Your task to perform on an android device: Play the last video I watched on Youtube Image 0: 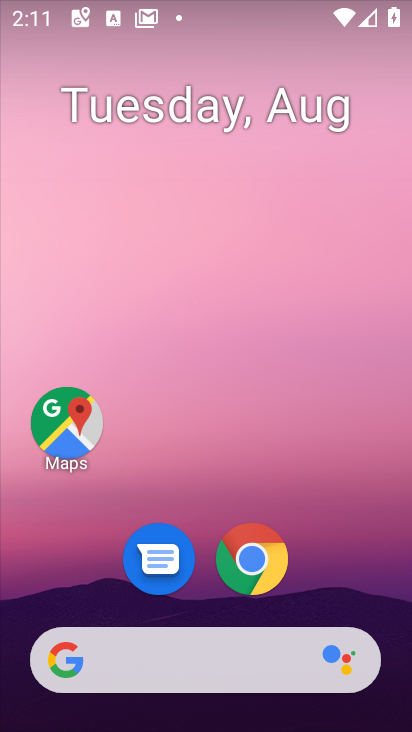
Step 0: drag from (211, 510) to (180, 131)
Your task to perform on an android device: Play the last video I watched on Youtube Image 1: 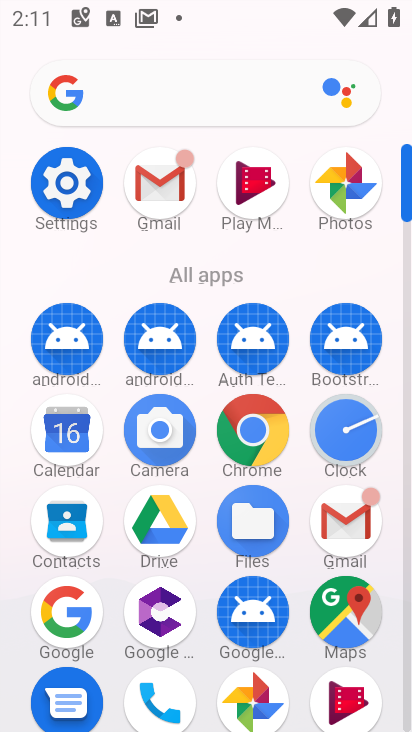
Step 1: drag from (196, 600) to (200, 264)
Your task to perform on an android device: Play the last video I watched on Youtube Image 2: 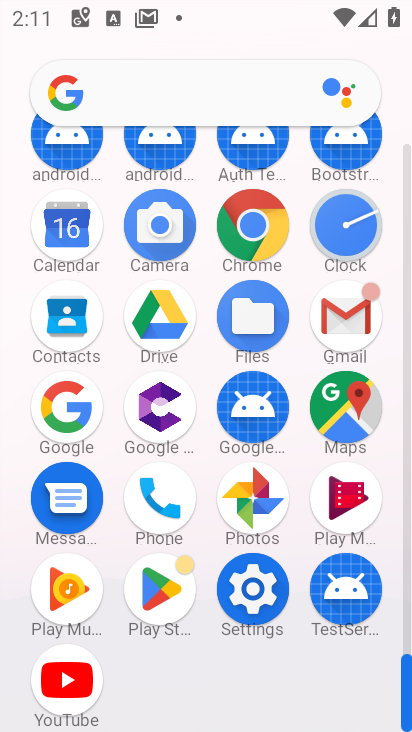
Step 2: click (84, 667)
Your task to perform on an android device: Play the last video I watched on Youtube Image 3: 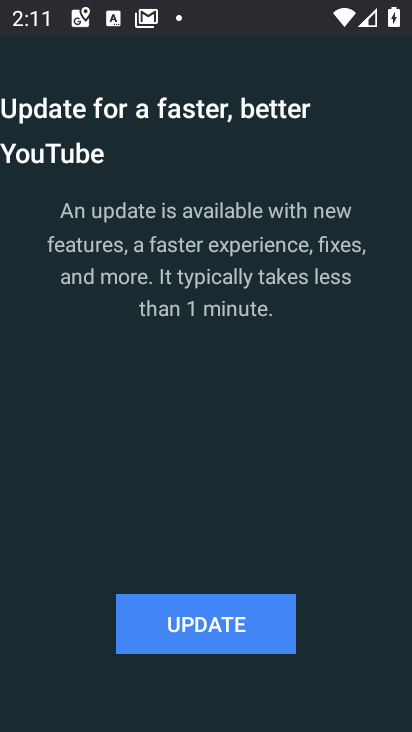
Step 3: click (198, 613)
Your task to perform on an android device: Play the last video I watched on Youtube Image 4: 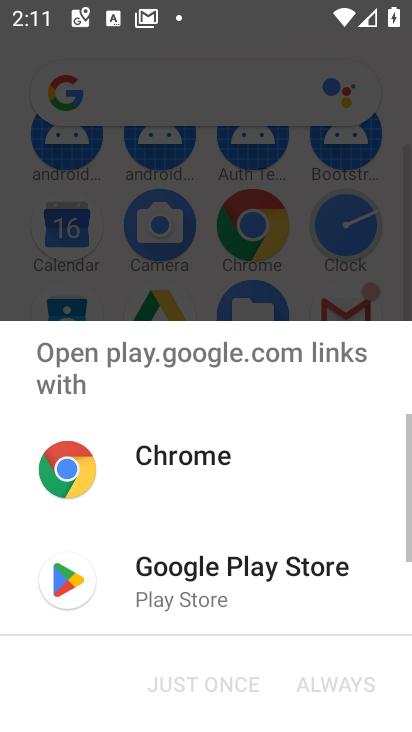
Step 4: click (267, 584)
Your task to perform on an android device: Play the last video I watched on Youtube Image 5: 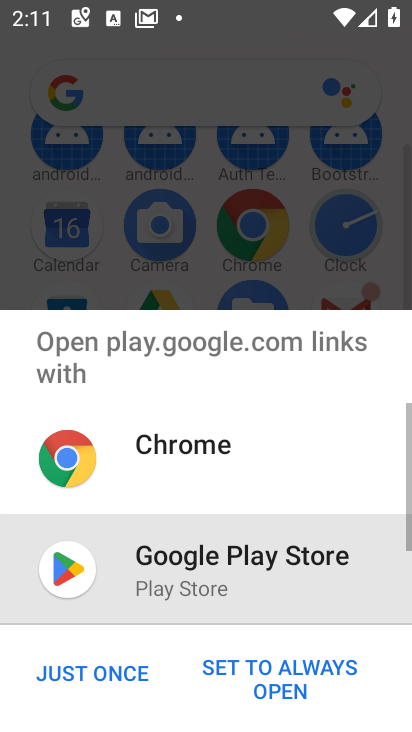
Step 5: click (138, 660)
Your task to perform on an android device: Play the last video I watched on Youtube Image 6: 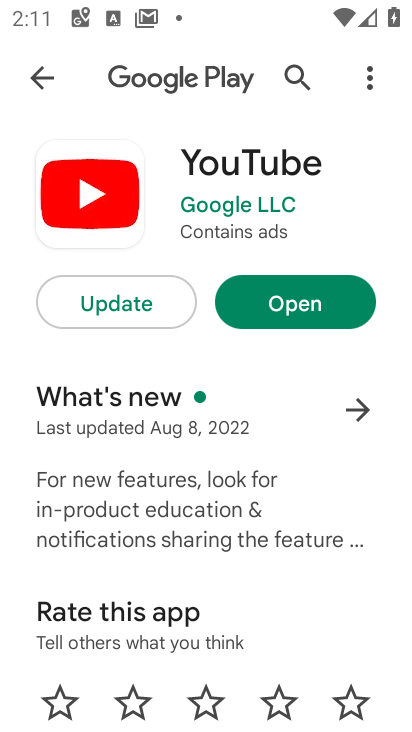
Step 6: click (131, 294)
Your task to perform on an android device: Play the last video I watched on Youtube Image 7: 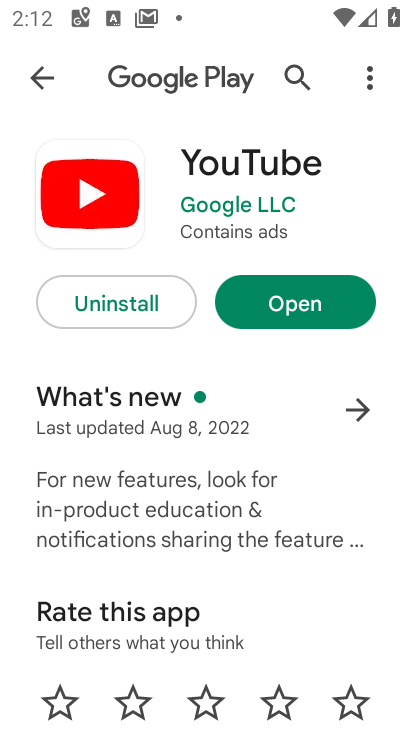
Step 7: click (283, 281)
Your task to perform on an android device: Play the last video I watched on Youtube Image 8: 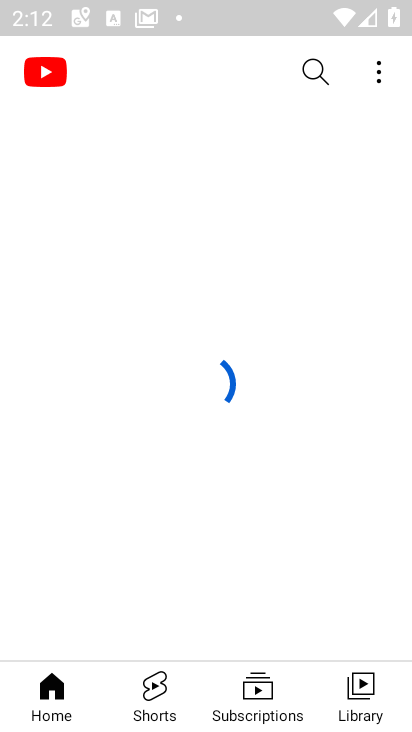
Step 8: click (359, 672)
Your task to perform on an android device: Play the last video I watched on Youtube Image 9: 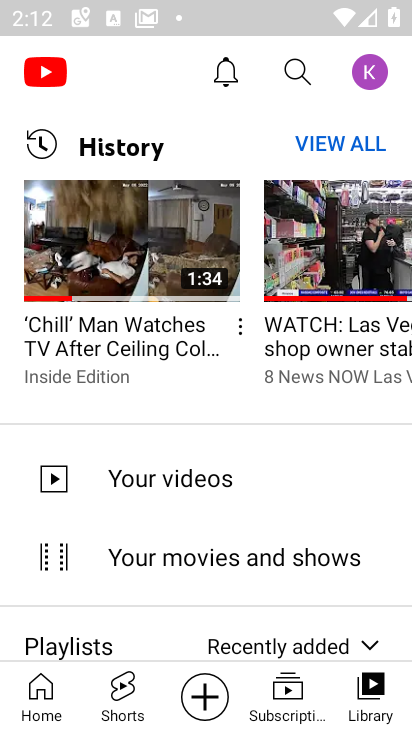
Step 9: click (109, 257)
Your task to perform on an android device: Play the last video I watched on Youtube Image 10: 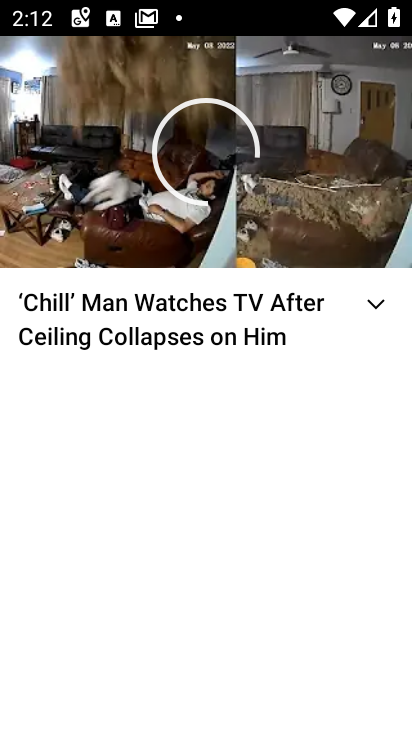
Step 10: click (204, 165)
Your task to perform on an android device: Play the last video I watched on Youtube Image 11: 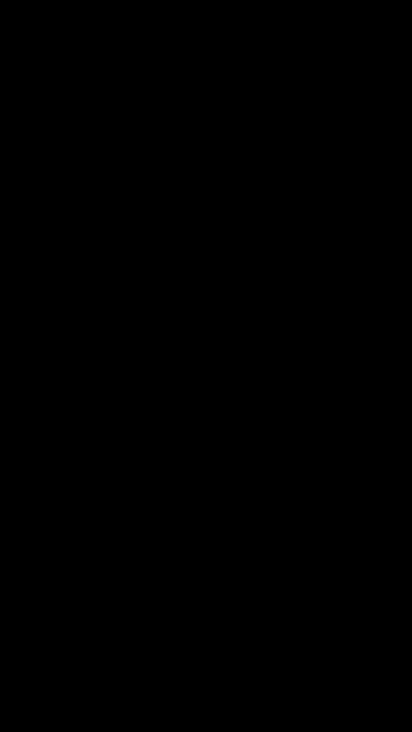
Step 11: task complete